Your task to perform on an android device: delete location history Image 0: 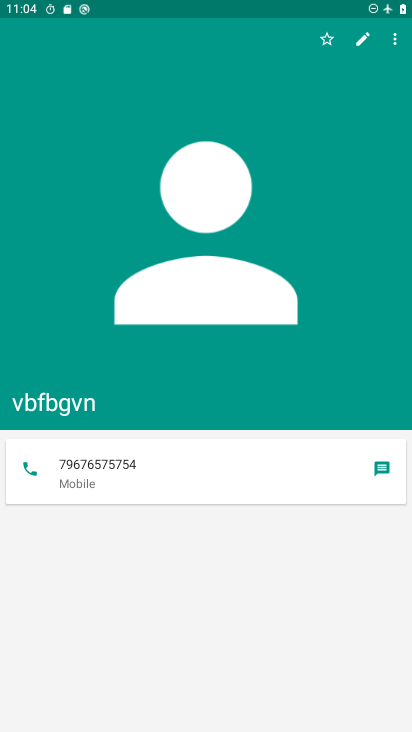
Step 0: press home button
Your task to perform on an android device: delete location history Image 1: 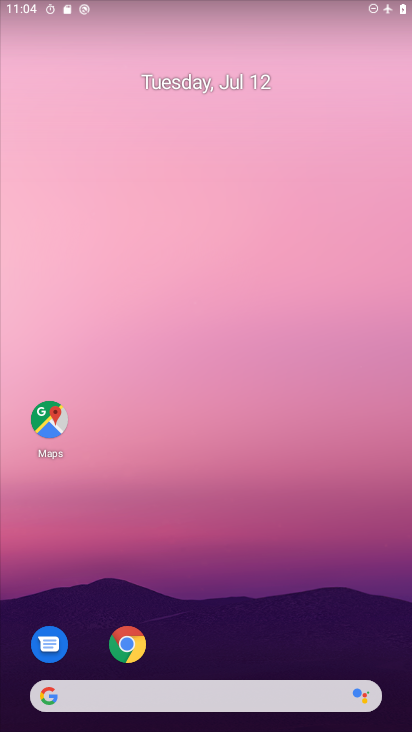
Step 1: drag from (203, 651) to (206, 121)
Your task to perform on an android device: delete location history Image 2: 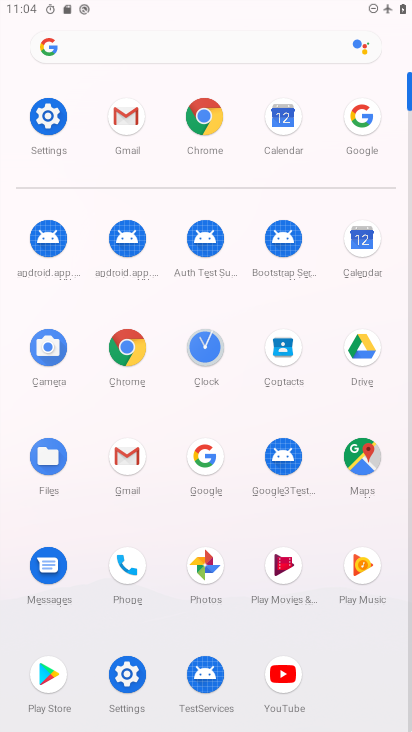
Step 2: click (359, 472)
Your task to perform on an android device: delete location history Image 3: 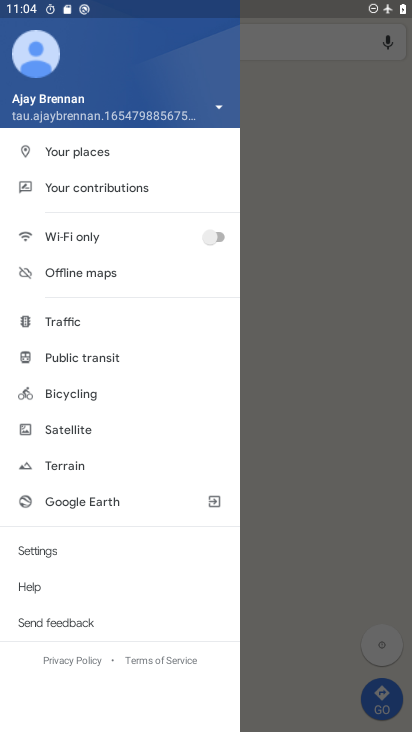
Step 3: click (105, 185)
Your task to perform on an android device: delete location history Image 4: 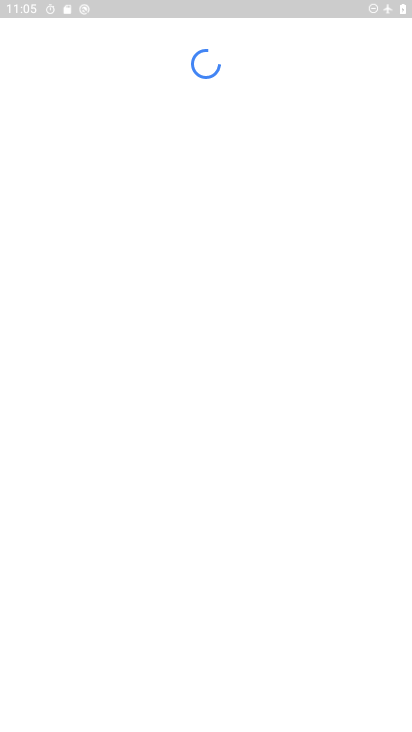
Step 4: task complete